Your task to perform on an android device: Search for Mexican restaurants on Maps Image 0: 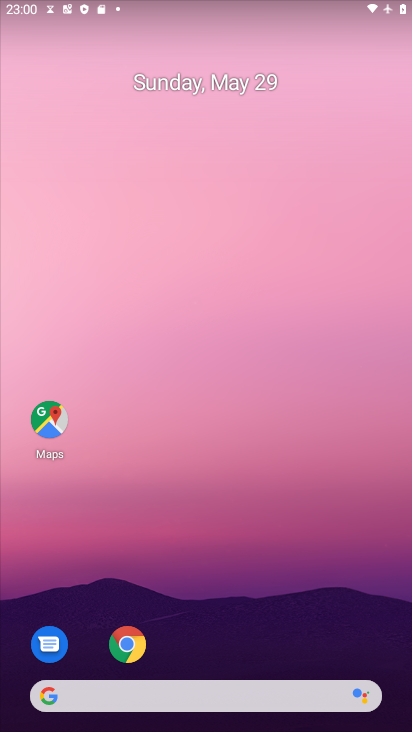
Step 0: drag from (282, 635) to (249, 248)
Your task to perform on an android device: Search for Mexican restaurants on Maps Image 1: 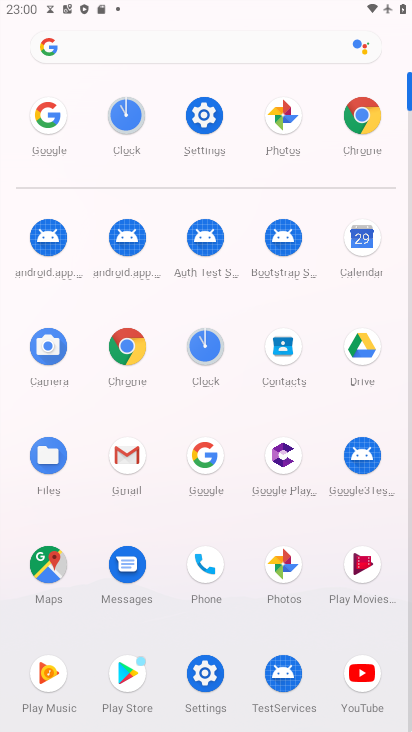
Step 1: click (46, 564)
Your task to perform on an android device: Search for Mexican restaurants on Maps Image 2: 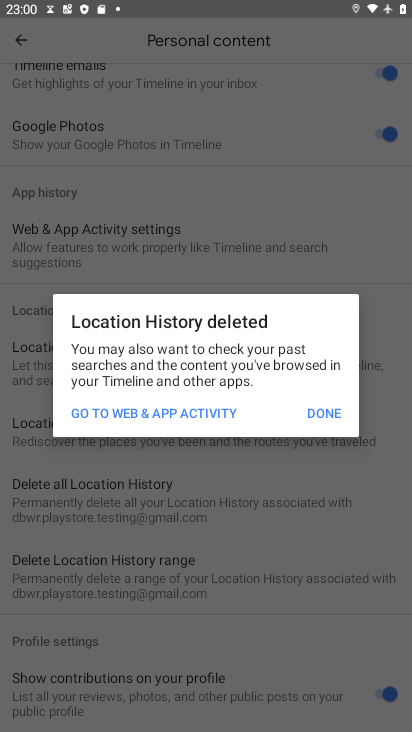
Step 2: click (324, 406)
Your task to perform on an android device: Search for Mexican restaurants on Maps Image 3: 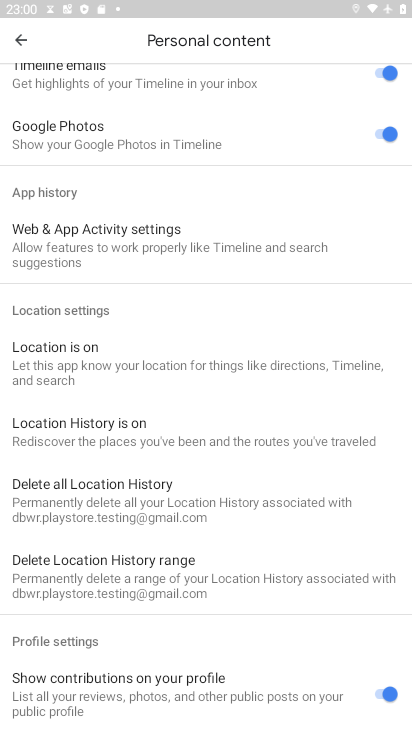
Step 3: click (31, 41)
Your task to perform on an android device: Search for Mexican restaurants on Maps Image 4: 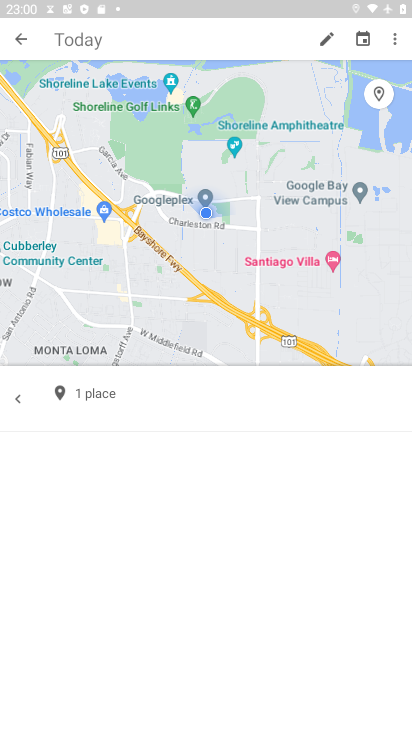
Step 4: click (24, 35)
Your task to perform on an android device: Search for Mexican restaurants on Maps Image 5: 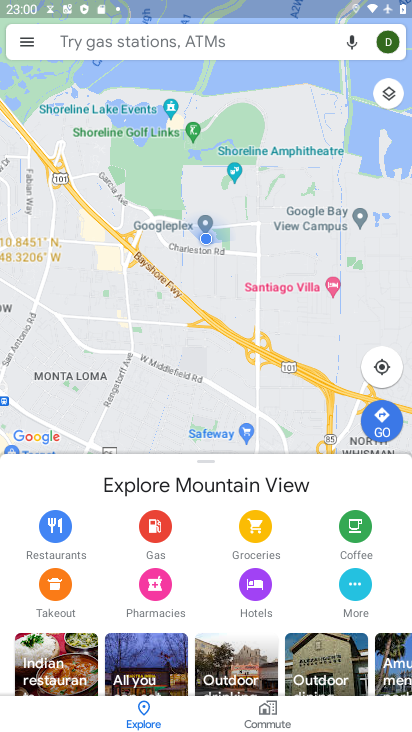
Step 5: click (131, 36)
Your task to perform on an android device: Search for Mexican restaurants on Maps Image 6: 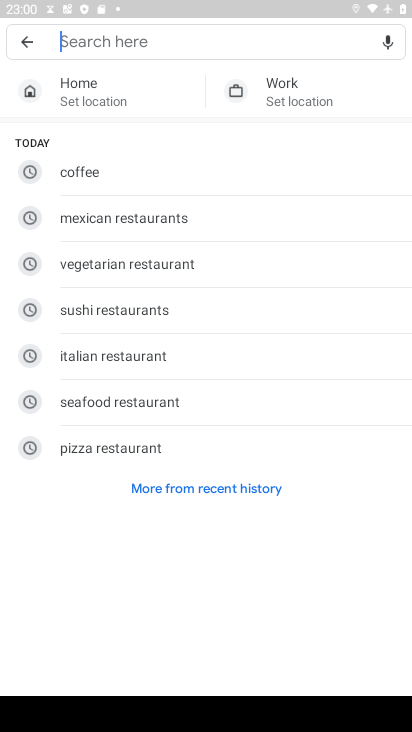
Step 6: click (172, 209)
Your task to perform on an android device: Search for Mexican restaurants on Maps Image 7: 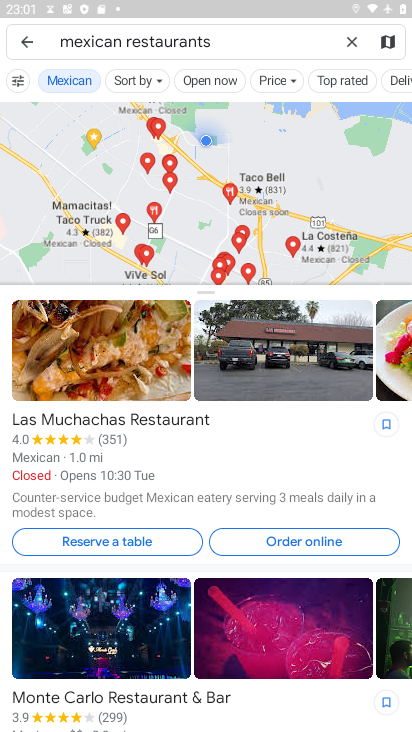
Step 7: task complete